Your task to perform on an android device: Search for pizza restaurants on Maps Image 0: 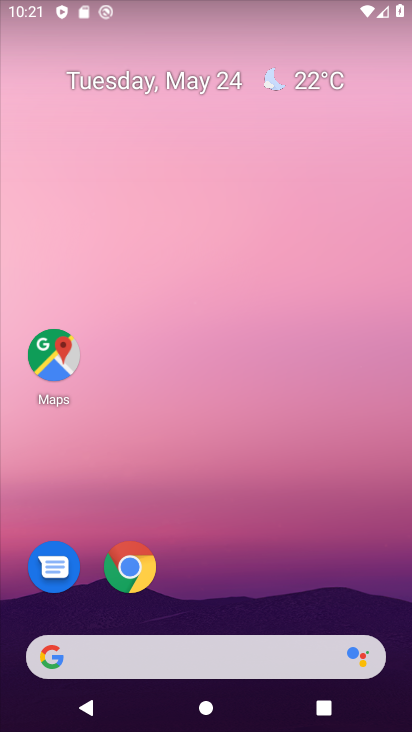
Step 0: click (54, 353)
Your task to perform on an android device: Search for pizza restaurants on Maps Image 1: 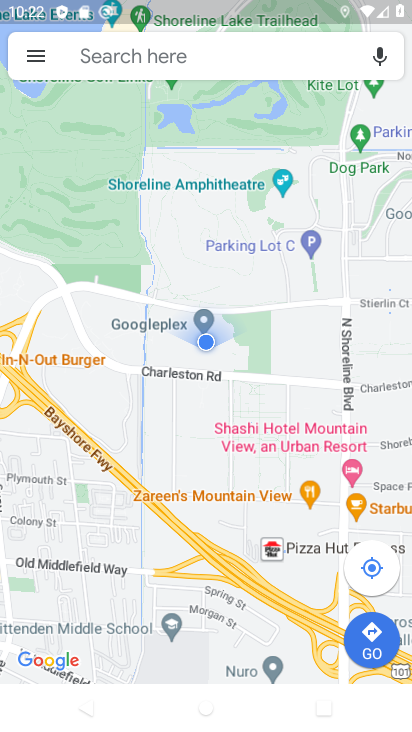
Step 1: click (184, 59)
Your task to perform on an android device: Search for pizza restaurants on Maps Image 2: 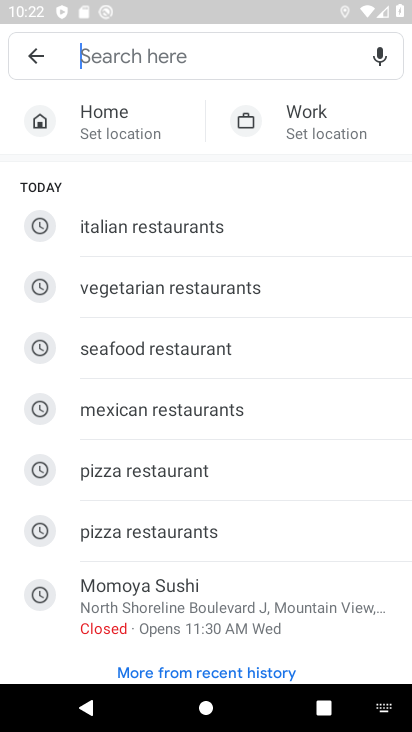
Step 2: click (235, 463)
Your task to perform on an android device: Search for pizza restaurants on Maps Image 3: 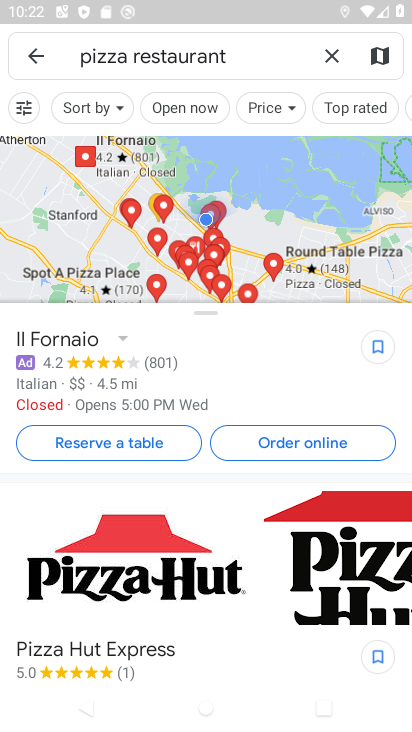
Step 3: task complete